Your task to perform on an android device: Open Chrome and go to settings Image 0: 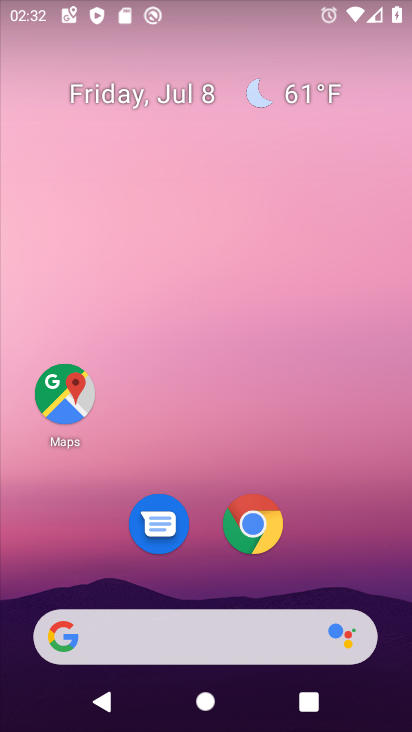
Step 0: click (268, 519)
Your task to perform on an android device: Open Chrome and go to settings Image 1: 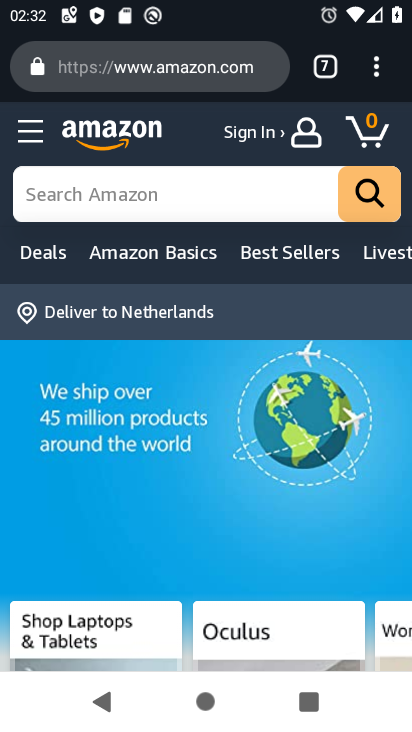
Step 1: click (379, 70)
Your task to perform on an android device: Open Chrome and go to settings Image 2: 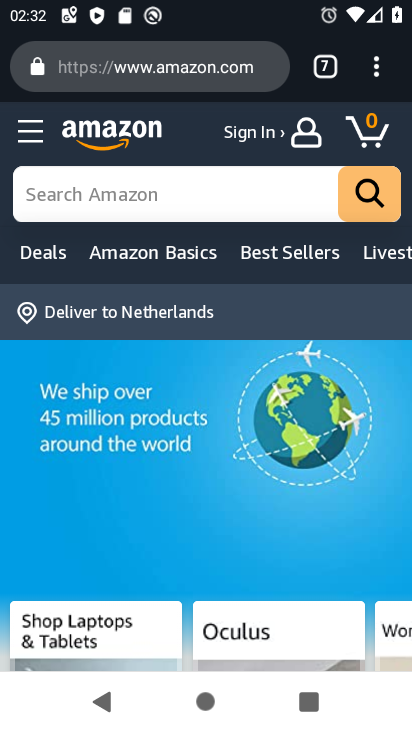
Step 2: click (379, 70)
Your task to perform on an android device: Open Chrome and go to settings Image 3: 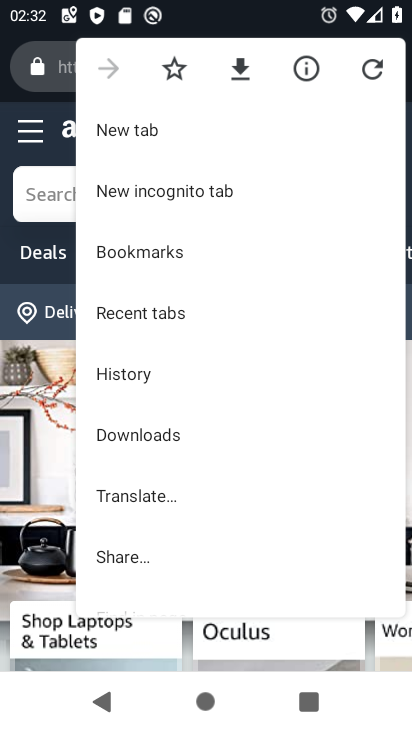
Step 3: drag from (226, 477) to (234, 148)
Your task to perform on an android device: Open Chrome and go to settings Image 4: 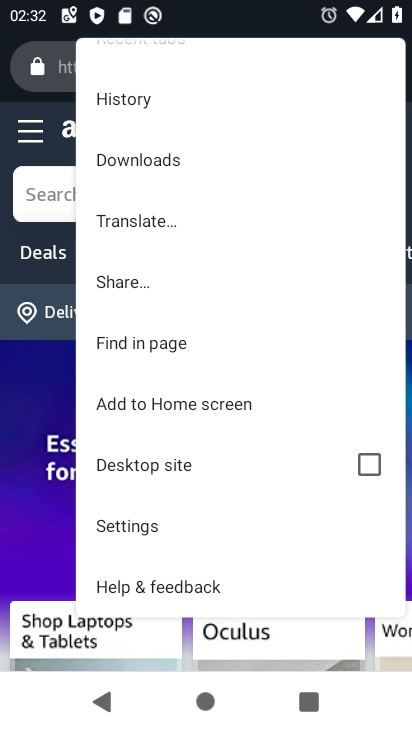
Step 4: click (141, 515)
Your task to perform on an android device: Open Chrome and go to settings Image 5: 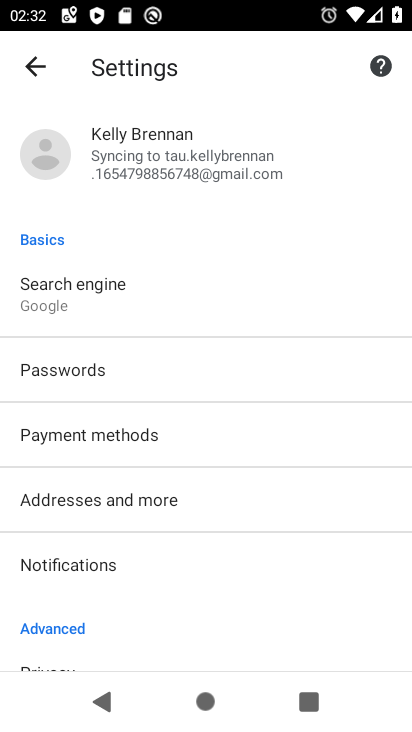
Step 5: task complete